Your task to perform on an android device: Open Android settings Image 0: 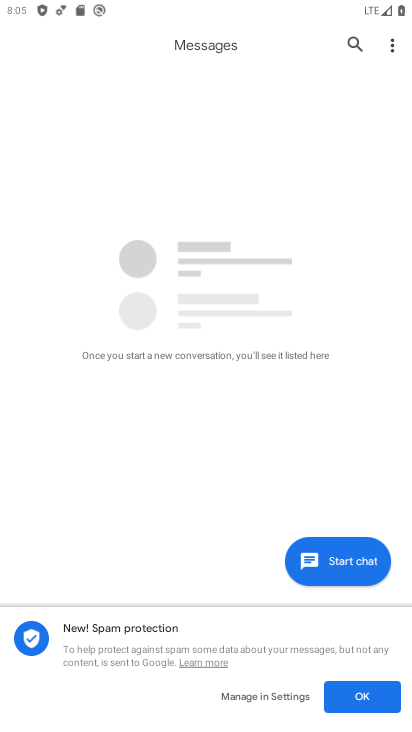
Step 0: press home button
Your task to perform on an android device: Open Android settings Image 1: 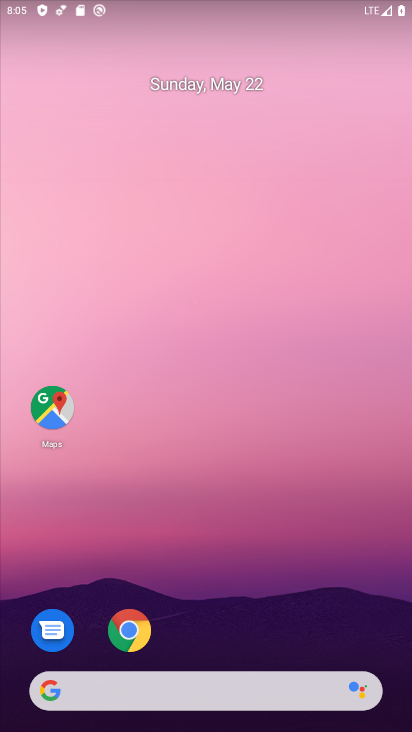
Step 1: drag from (389, 651) to (303, 52)
Your task to perform on an android device: Open Android settings Image 2: 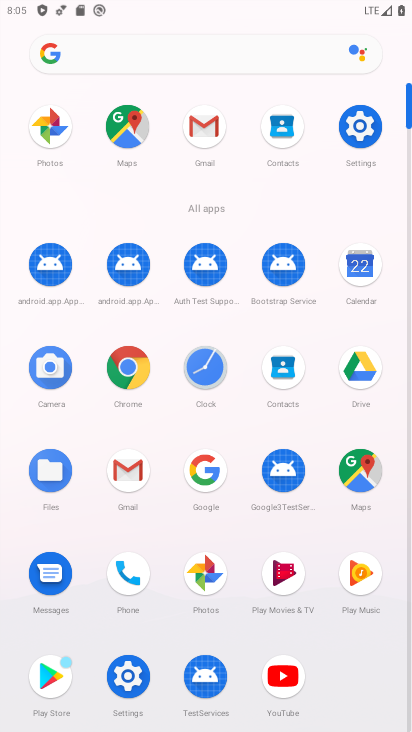
Step 2: click (409, 711)
Your task to perform on an android device: Open Android settings Image 3: 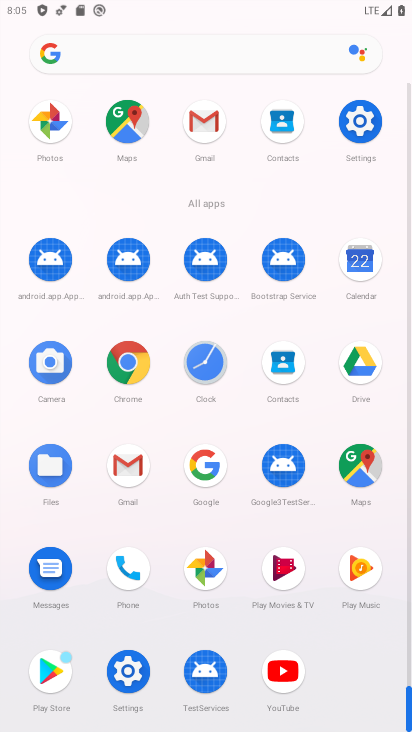
Step 3: click (123, 666)
Your task to perform on an android device: Open Android settings Image 4: 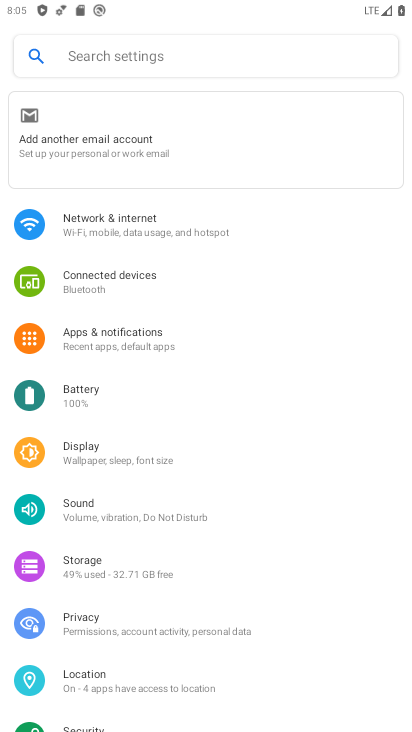
Step 4: drag from (295, 672) to (300, 200)
Your task to perform on an android device: Open Android settings Image 5: 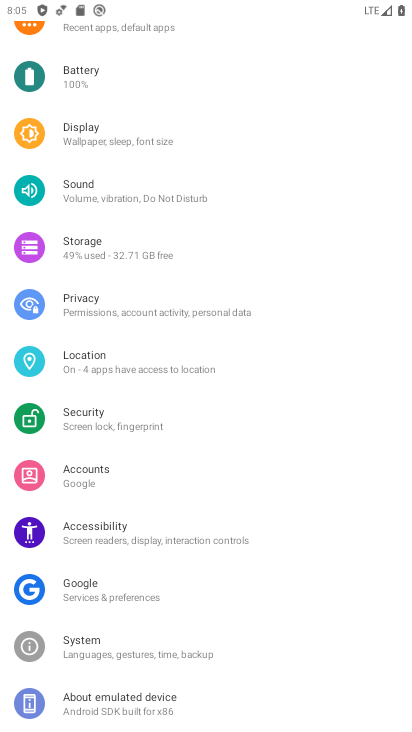
Step 5: click (87, 697)
Your task to perform on an android device: Open Android settings Image 6: 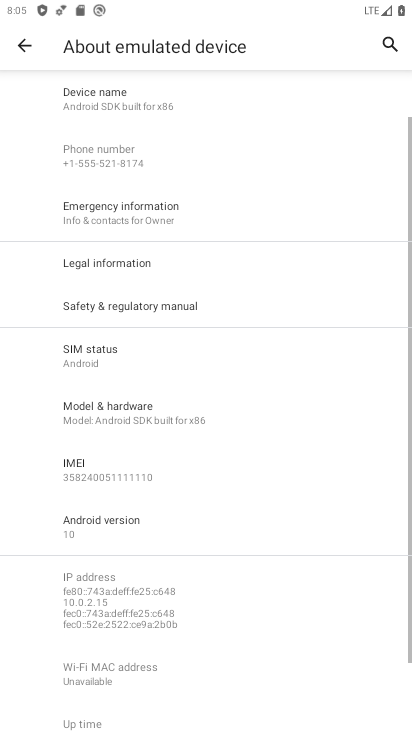
Step 6: task complete